Your task to perform on an android device: Open internet settings Image 0: 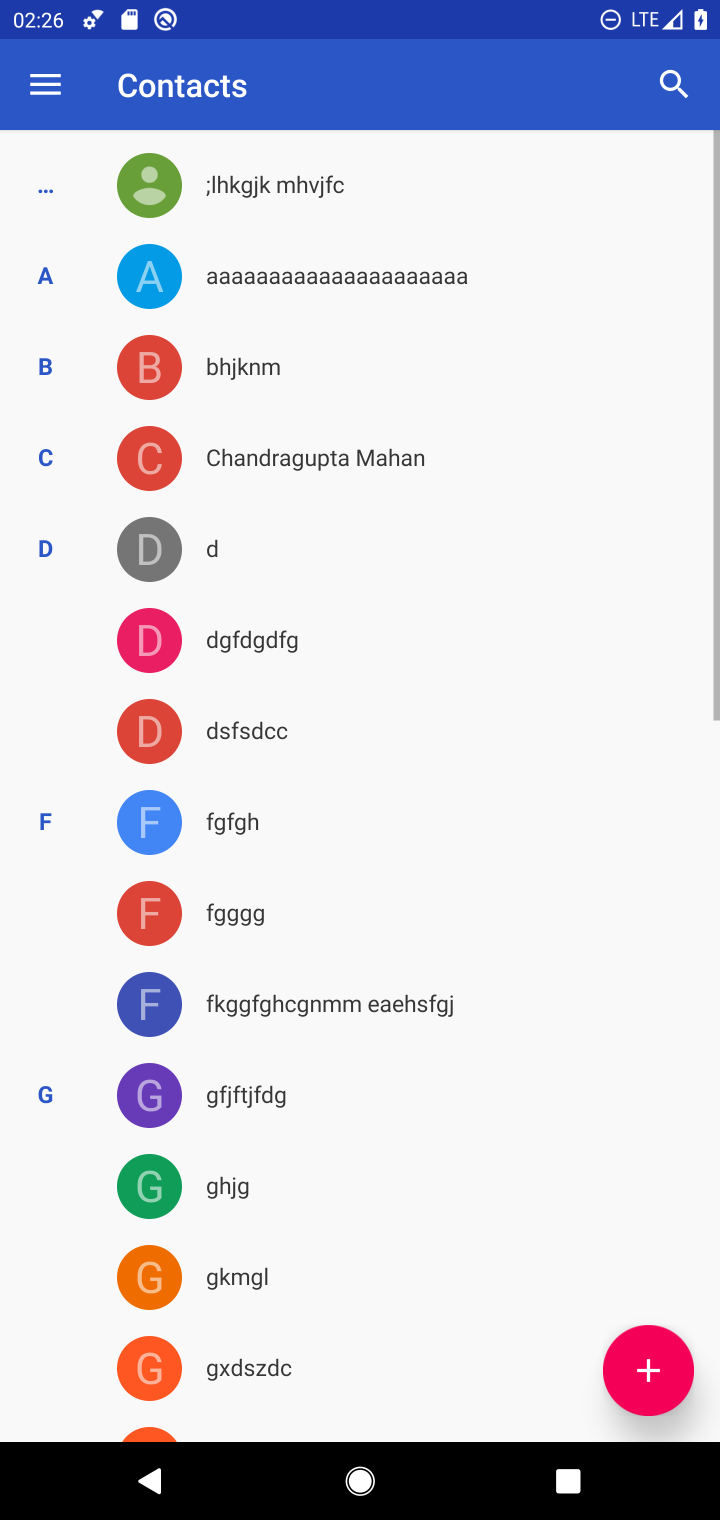
Step 0: press home button
Your task to perform on an android device: Open internet settings Image 1: 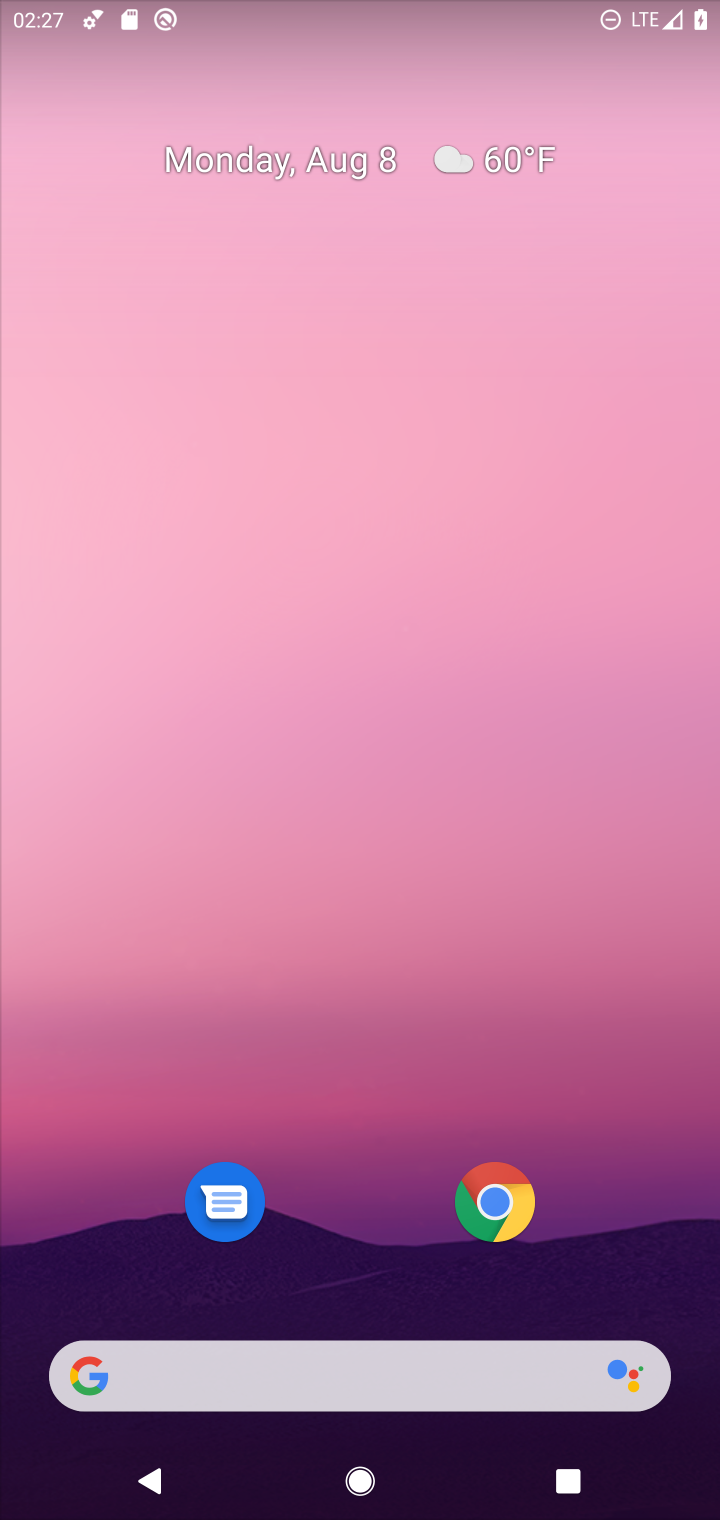
Step 1: press home button
Your task to perform on an android device: Open internet settings Image 2: 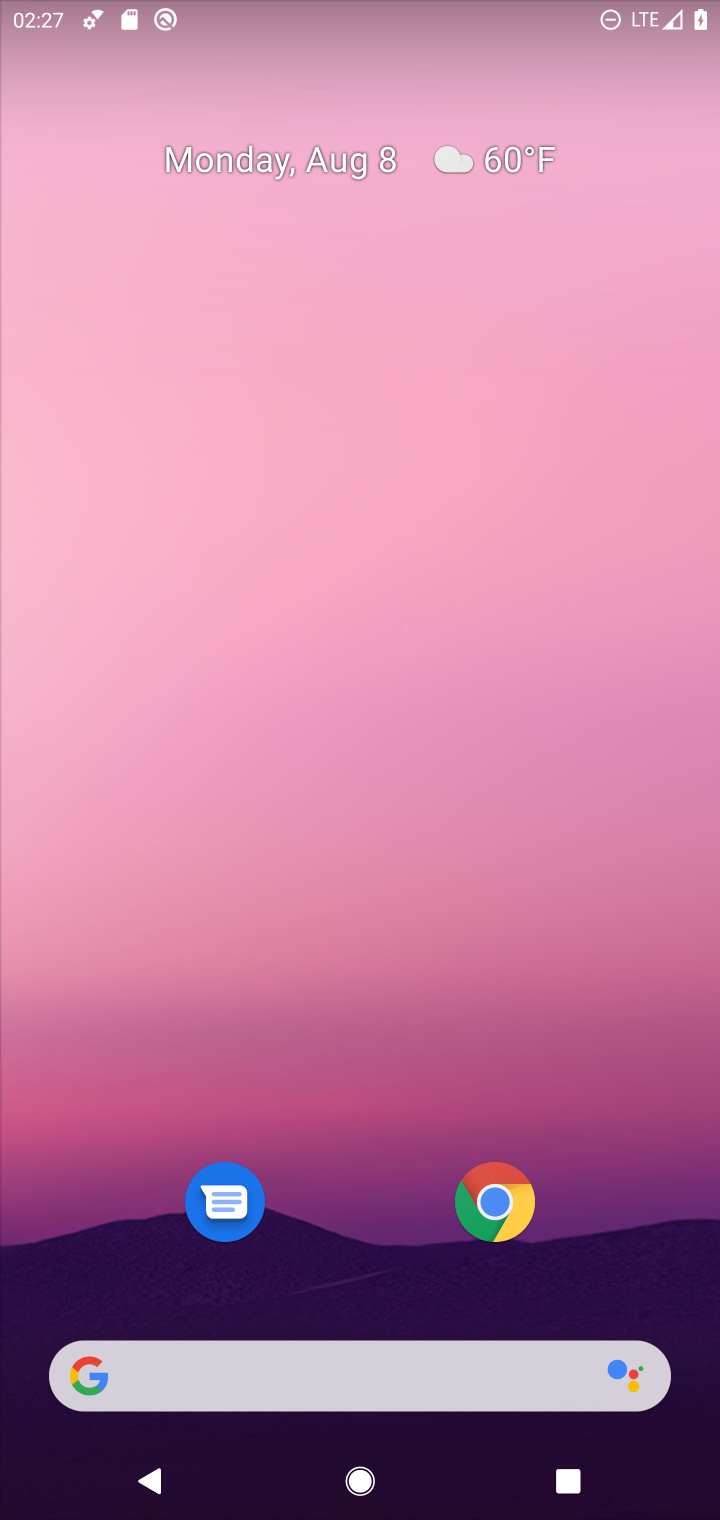
Step 2: drag from (582, 1241) to (580, 169)
Your task to perform on an android device: Open internet settings Image 3: 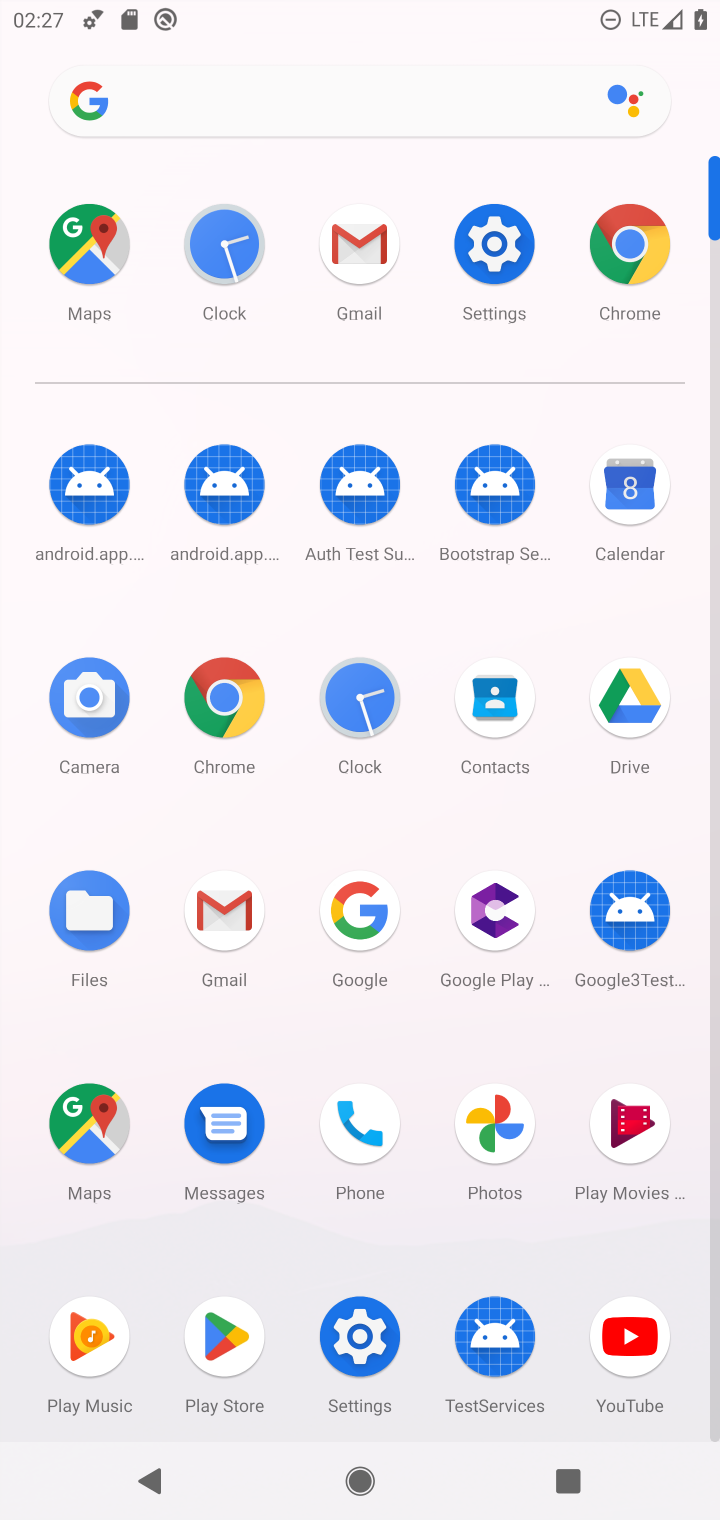
Step 3: click (494, 238)
Your task to perform on an android device: Open internet settings Image 4: 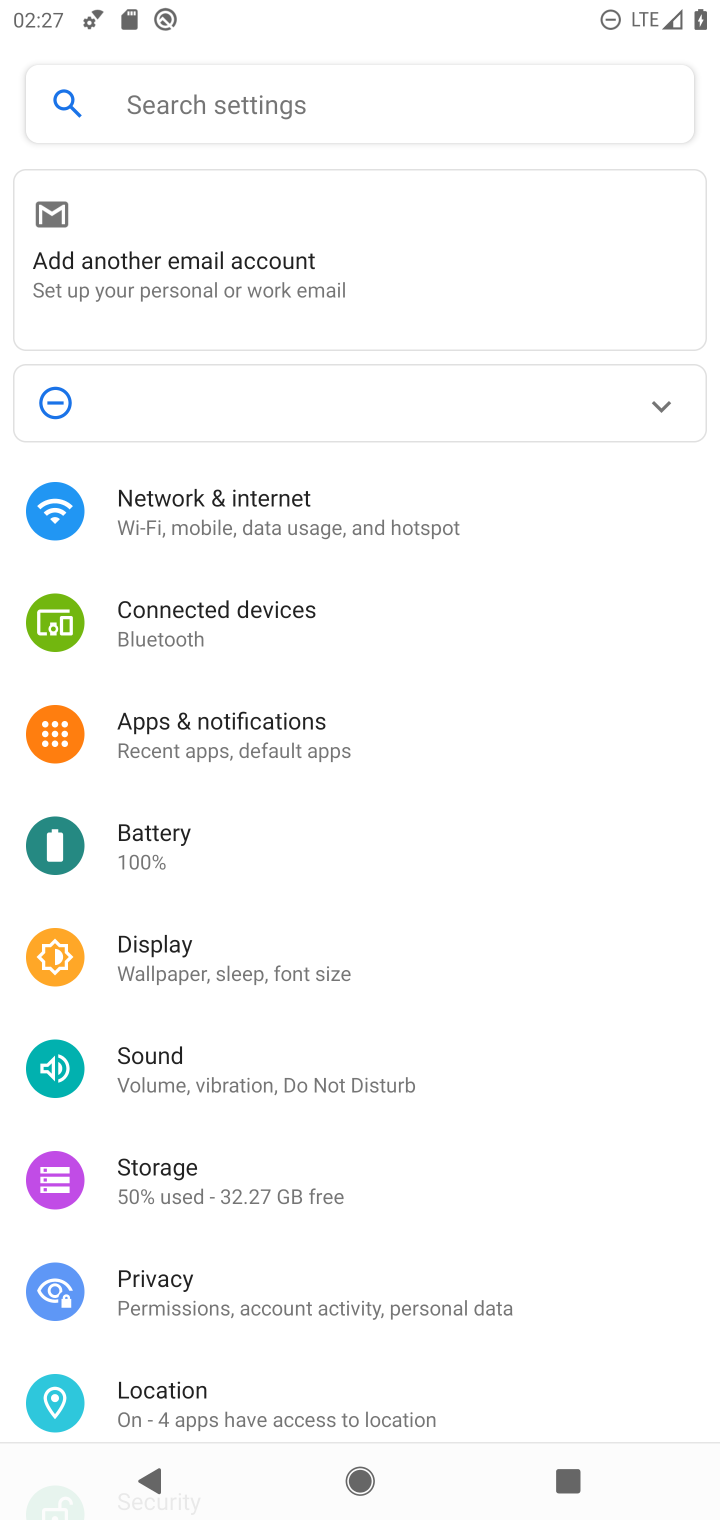
Step 4: click (369, 515)
Your task to perform on an android device: Open internet settings Image 5: 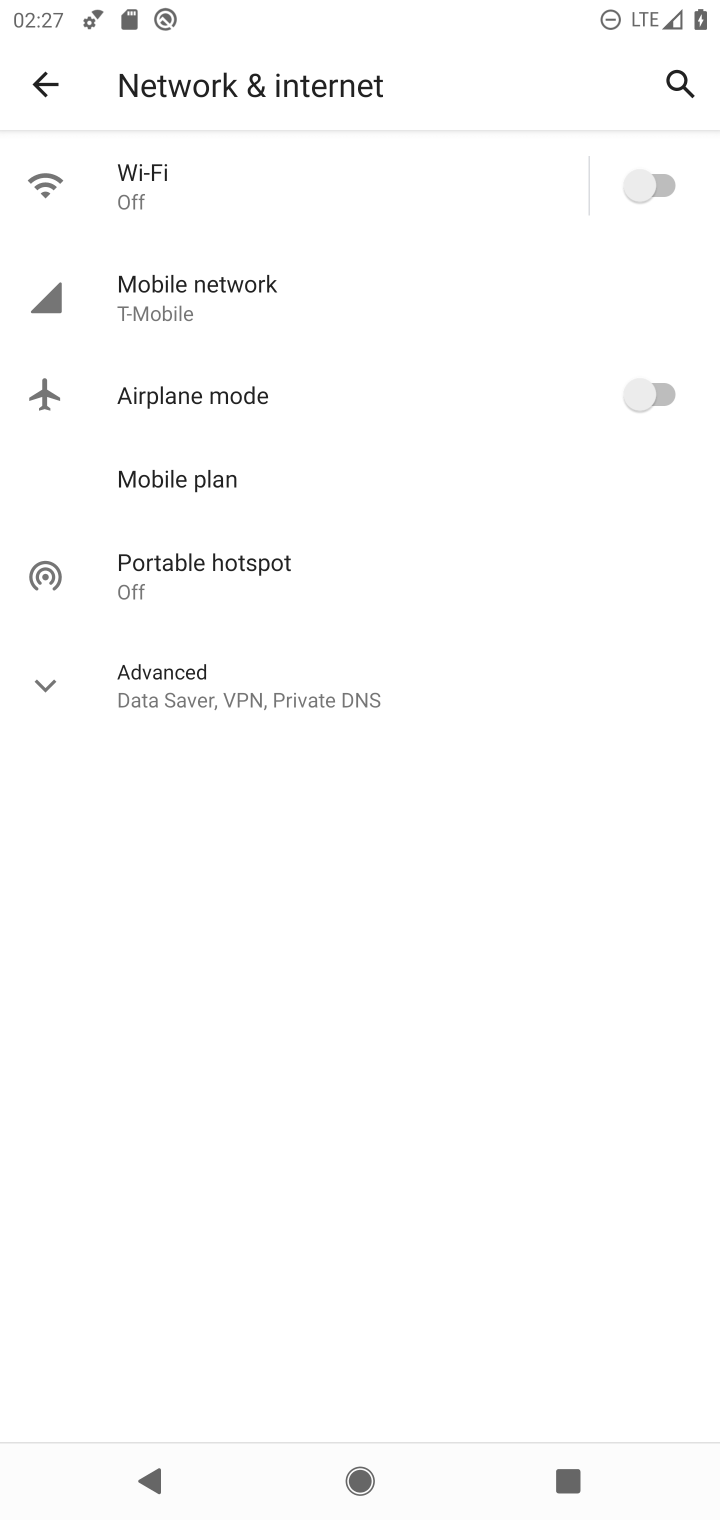
Step 5: task complete